Your task to perform on an android device: toggle pop-ups in chrome Image 0: 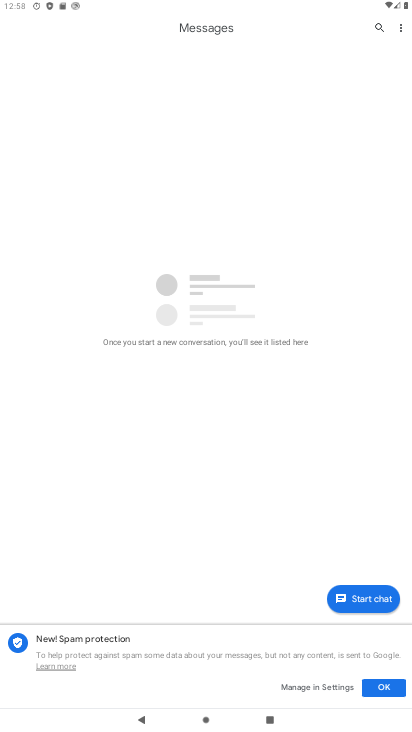
Step 0: press home button
Your task to perform on an android device: toggle pop-ups in chrome Image 1: 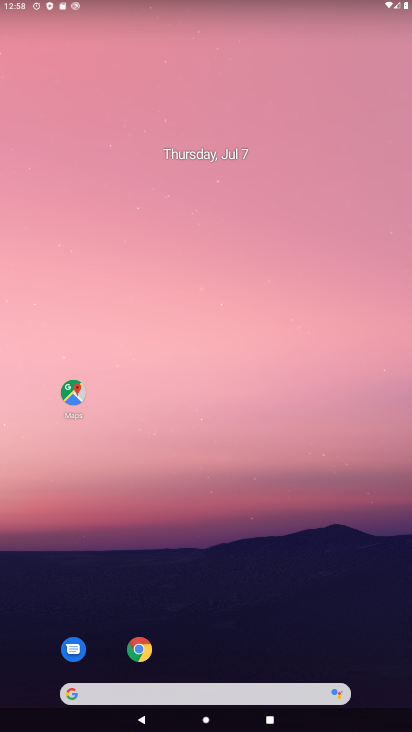
Step 1: click (131, 655)
Your task to perform on an android device: toggle pop-ups in chrome Image 2: 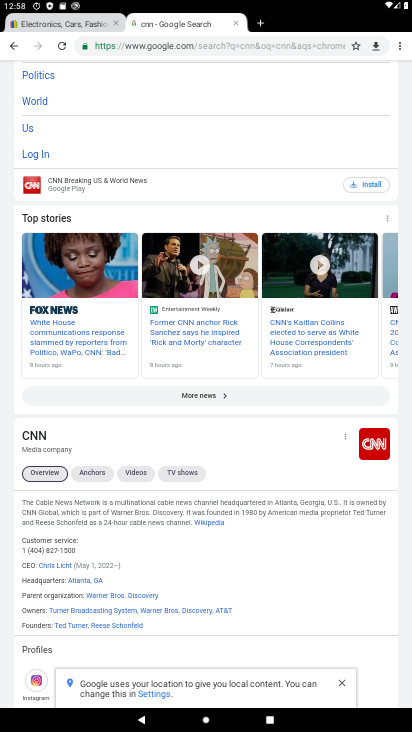
Step 2: click (398, 48)
Your task to perform on an android device: toggle pop-ups in chrome Image 3: 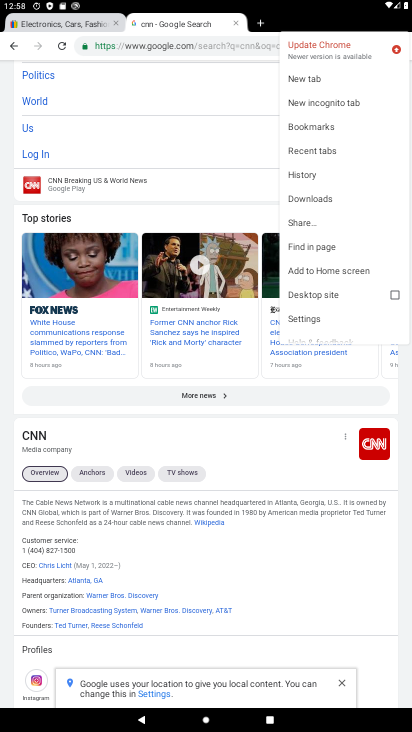
Step 3: click (307, 321)
Your task to perform on an android device: toggle pop-ups in chrome Image 4: 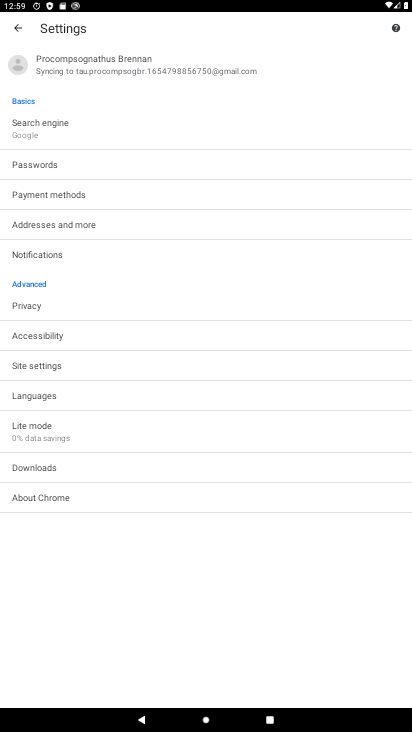
Step 4: click (34, 357)
Your task to perform on an android device: toggle pop-ups in chrome Image 5: 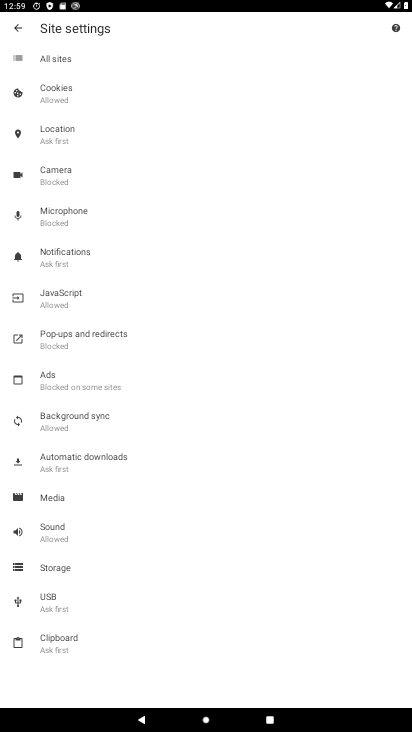
Step 5: click (54, 340)
Your task to perform on an android device: toggle pop-ups in chrome Image 6: 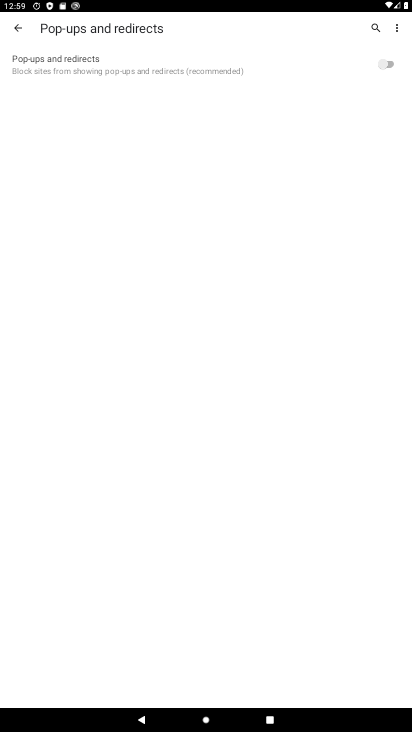
Step 6: click (389, 65)
Your task to perform on an android device: toggle pop-ups in chrome Image 7: 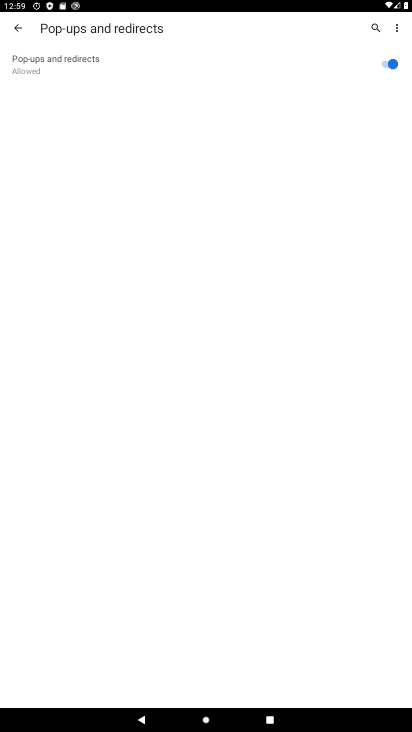
Step 7: task complete